Your task to perform on an android device: check android version Image 0: 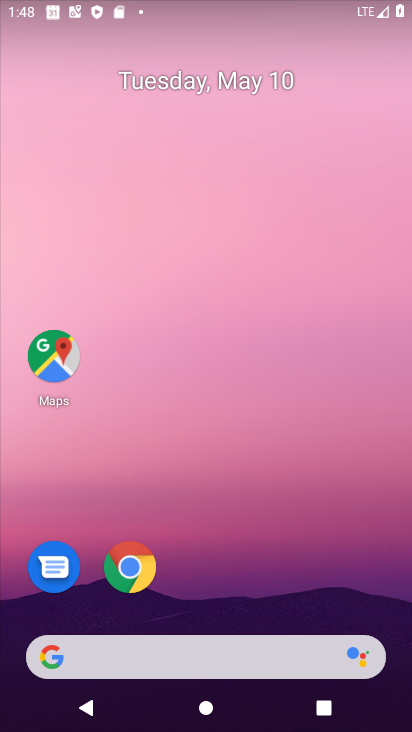
Step 0: drag from (386, 627) to (321, 75)
Your task to perform on an android device: check android version Image 1: 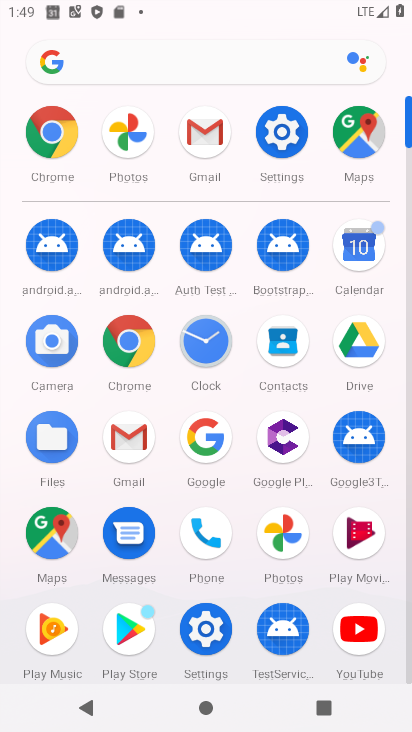
Step 1: click (286, 146)
Your task to perform on an android device: check android version Image 2: 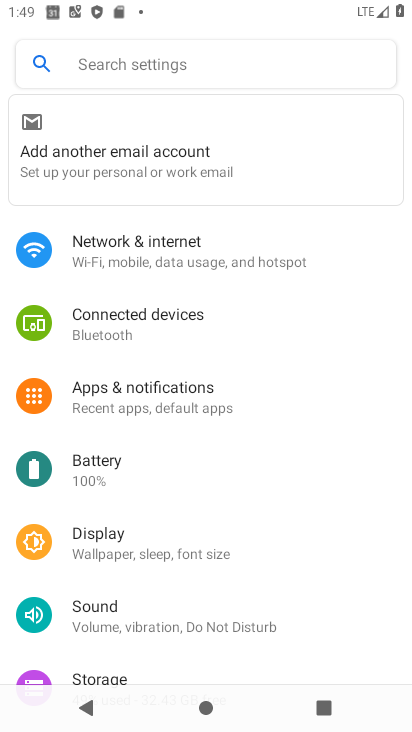
Step 2: drag from (205, 637) to (268, 118)
Your task to perform on an android device: check android version Image 3: 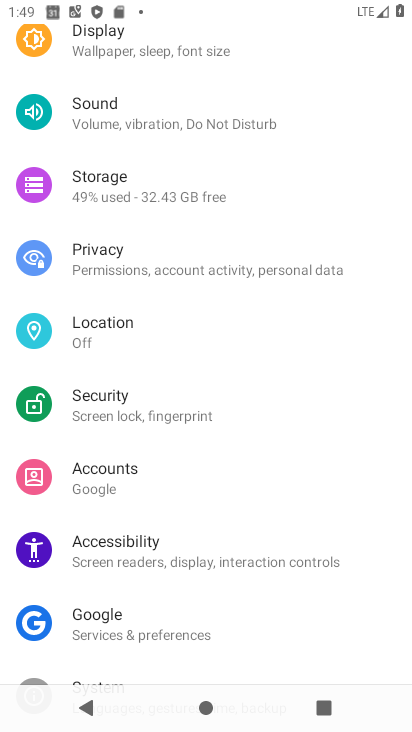
Step 3: drag from (204, 538) to (215, 97)
Your task to perform on an android device: check android version Image 4: 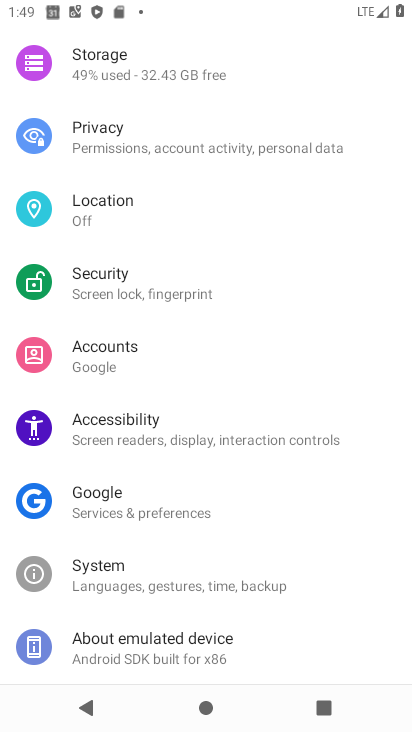
Step 4: click (151, 658)
Your task to perform on an android device: check android version Image 5: 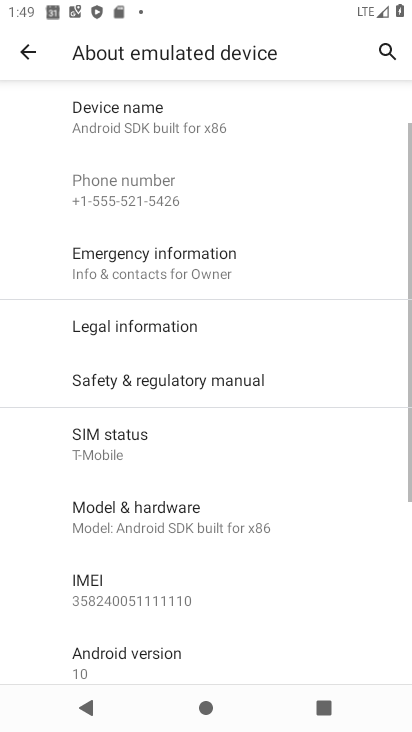
Step 5: click (162, 666)
Your task to perform on an android device: check android version Image 6: 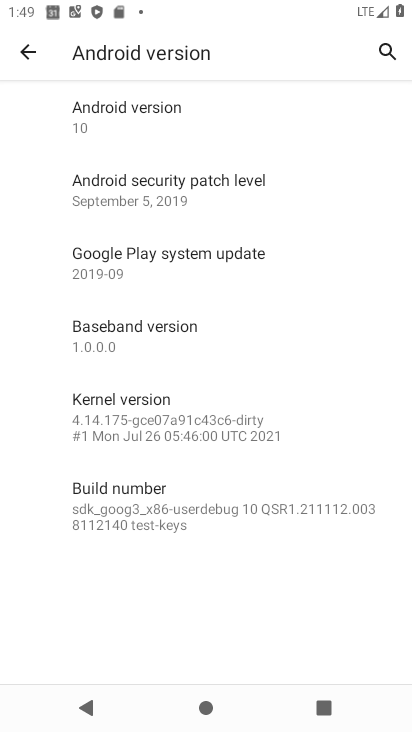
Step 6: task complete